Your task to perform on an android device: turn off location Image 0: 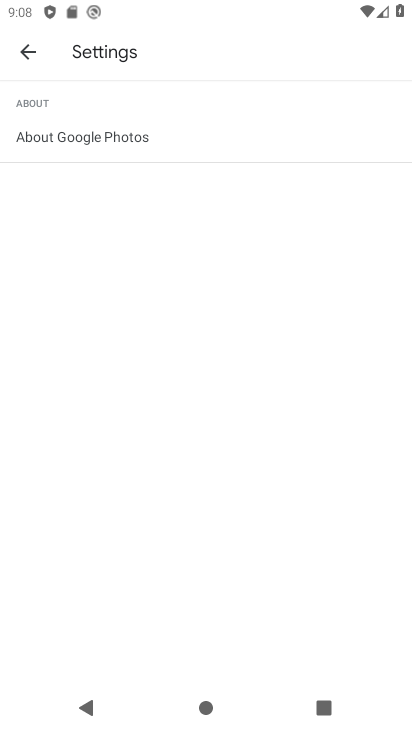
Step 0: press home button
Your task to perform on an android device: turn off location Image 1: 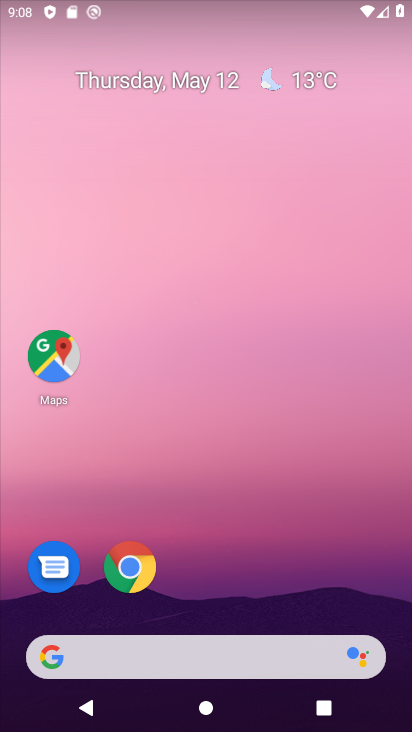
Step 1: drag from (233, 608) to (265, 209)
Your task to perform on an android device: turn off location Image 2: 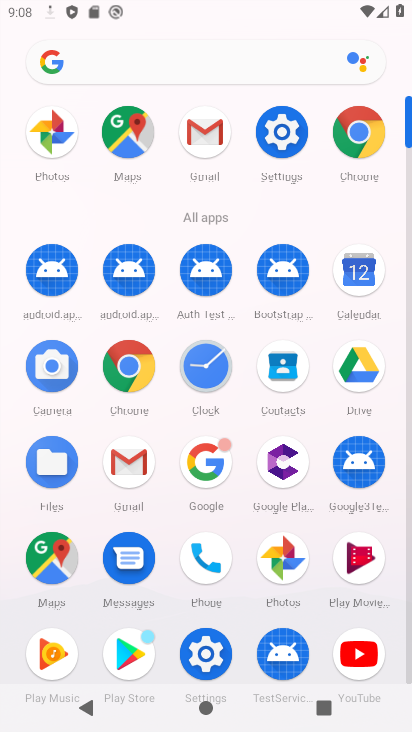
Step 2: click (207, 661)
Your task to perform on an android device: turn off location Image 3: 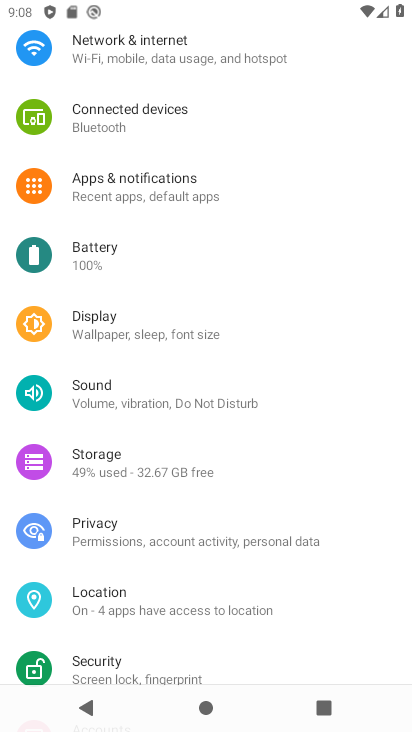
Step 3: click (120, 605)
Your task to perform on an android device: turn off location Image 4: 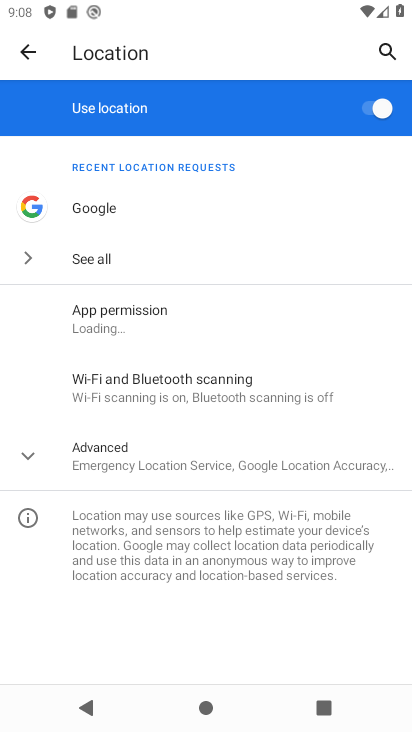
Step 4: click (371, 114)
Your task to perform on an android device: turn off location Image 5: 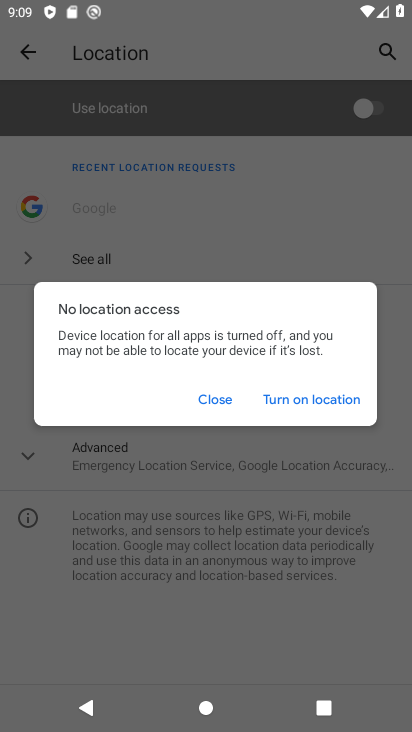
Step 5: task complete